Your task to perform on an android device: turn notification dots off Image 0: 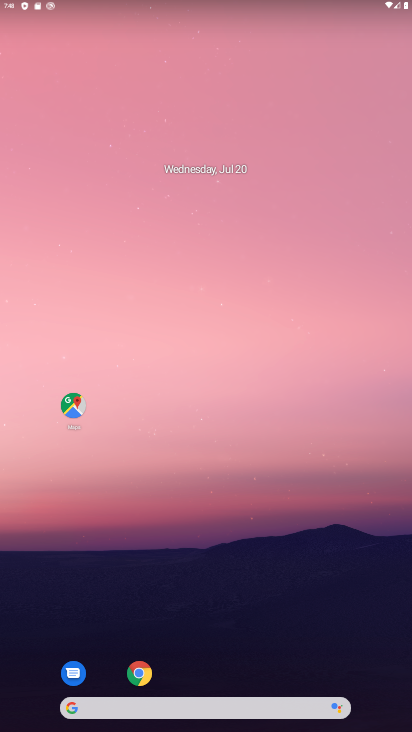
Step 0: drag from (173, 657) to (237, 132)
Your task to perform on an android device: turn notification dots off Image 1: 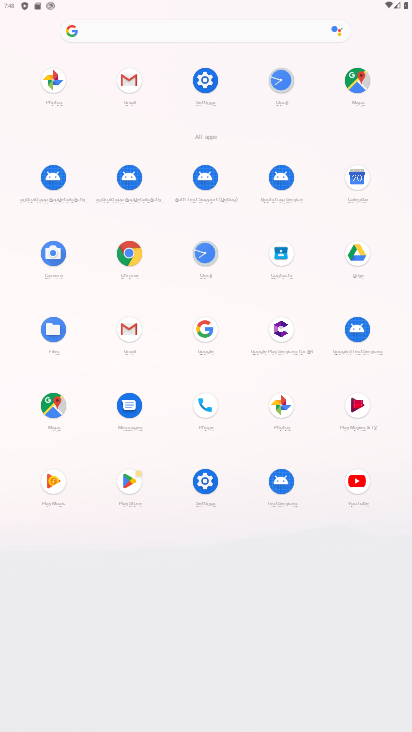
Step 1: click (206, 75)
Your task to perform on an android device: turn notification dots off Image 2: 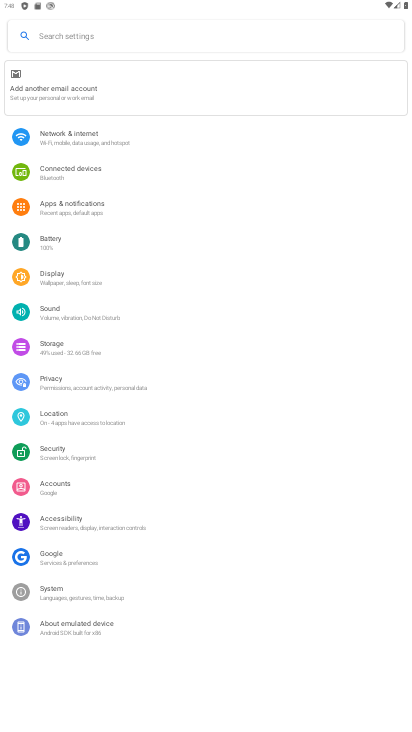
Step 2: click (98, 205)
Your task to perform on an android device: turn notification dots off Image 3: 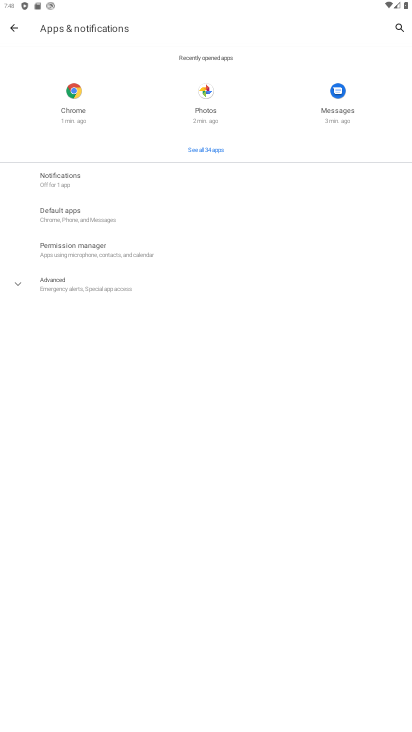
Step 3: click (89, 180)
Your task to perform on an android device: turn notification dots off Image 4: 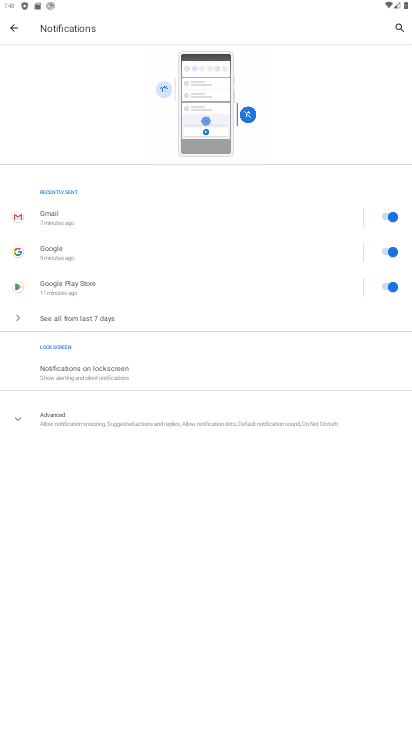
Step 4: click (92, 421)
Your task to perform on an android device: turn notification dots off Image 5: 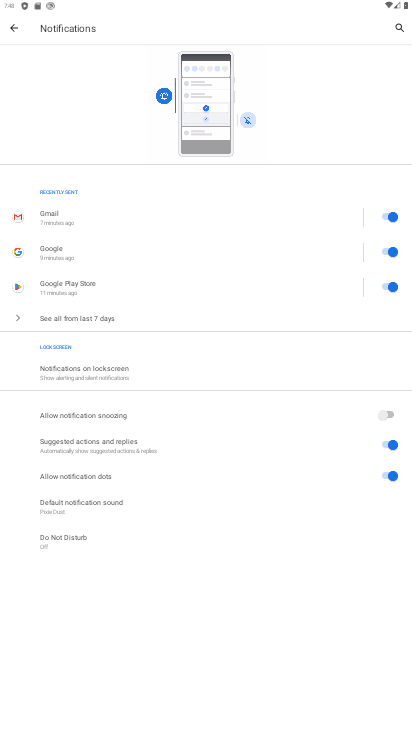
Step 5: click (382, 472)
Your task to perform on an android device: turn notification dots off Image 6: 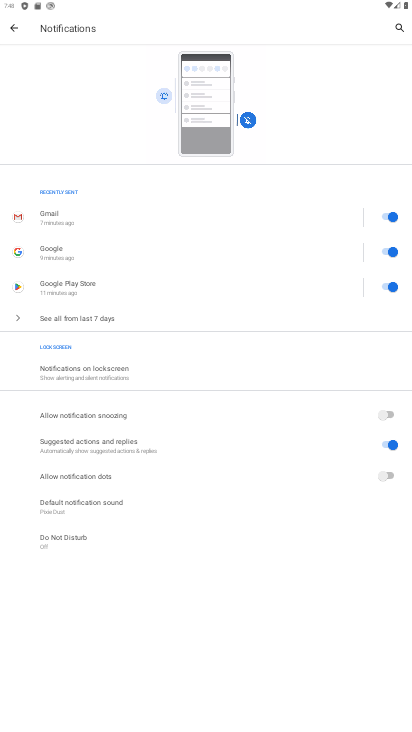
Step 6: task complete